Your task to perform on an android device: toggle notification dots Image 0: 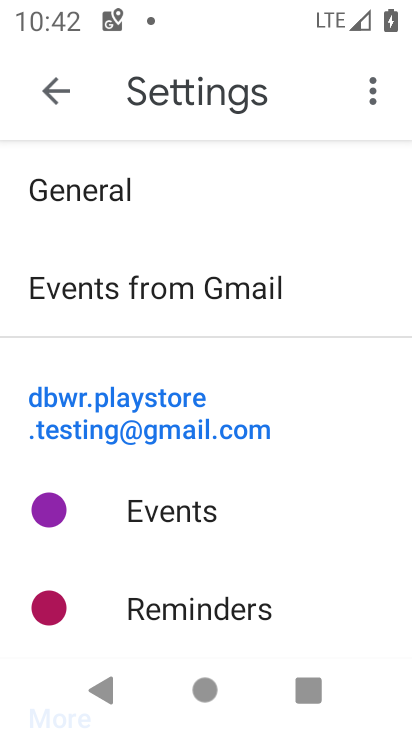
Step 0: press home button
Your task to perform on an android device: toggle notification dots Image 1: 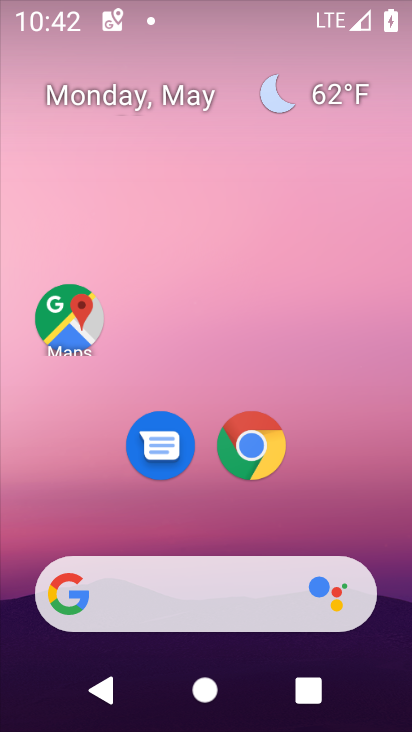
Step 1: drag from (386, 624) to (272, 54)
Your task to perform on an android device: toggle notification dots Image 2: 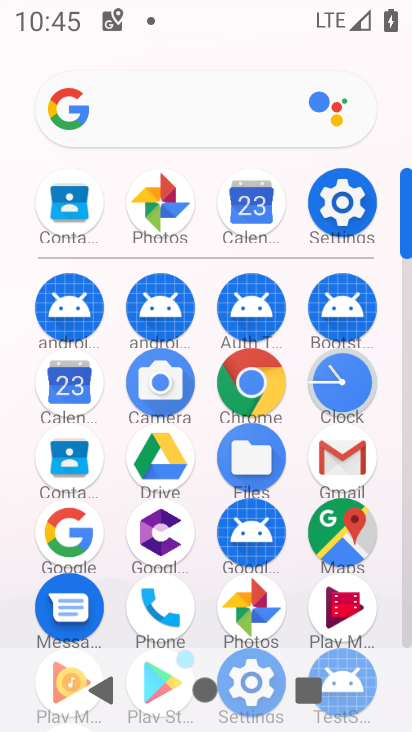
Step 2: click (344, 211)
Your task to perform on an android device: toggle notification dots Image 3: 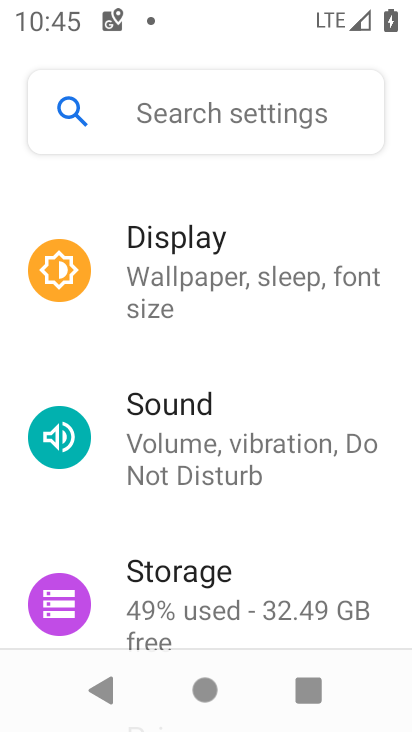
Step 3: drag from (255, 233) to (283, 637)
Your task to perform on an android device: toggle notification dots Image 4: 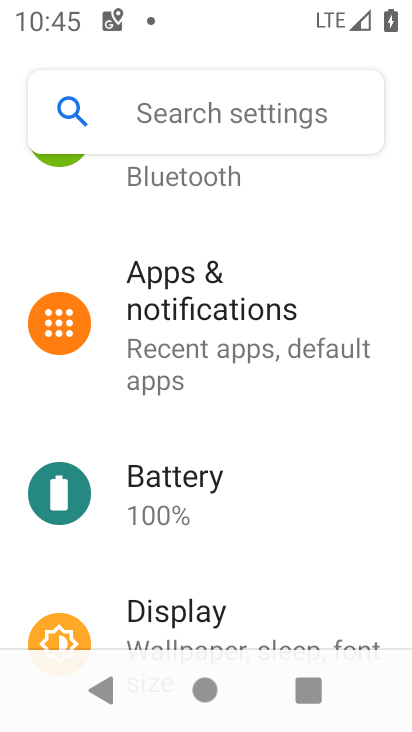
Step 4: click (231, 273)
Your task to perform on an android device: toggle notification dots Image 5: 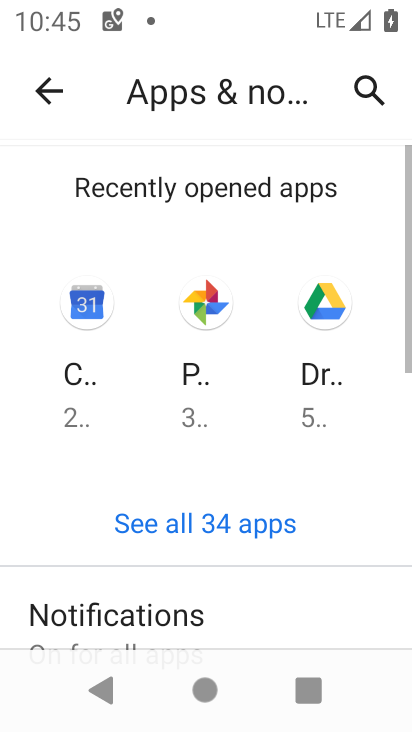
Step 5: click (206, 600)
Your task to perform on an android device: toggle notification dots Image 6: 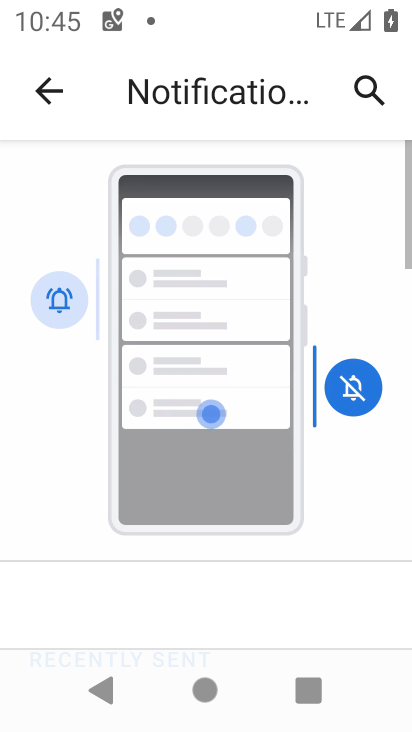
Step 6: drag from (209, 596) to (396, 544)
Your task to perform on an android device: toggle notification dots Image 7: 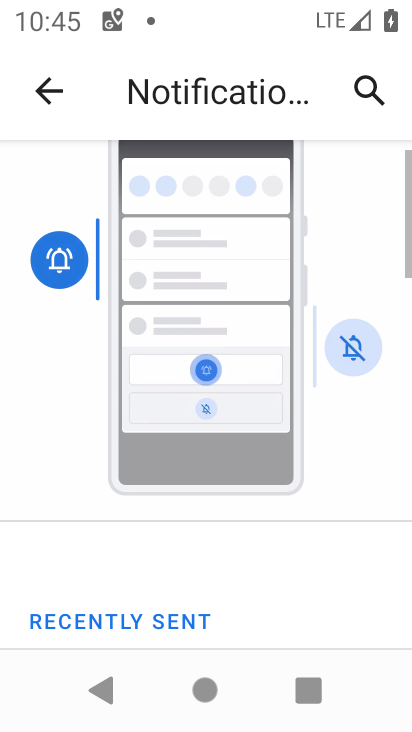
Step 7: drag from (146, 543) to (186, 1)
Your task to perform on an android device: toggle notification dots Image 8: 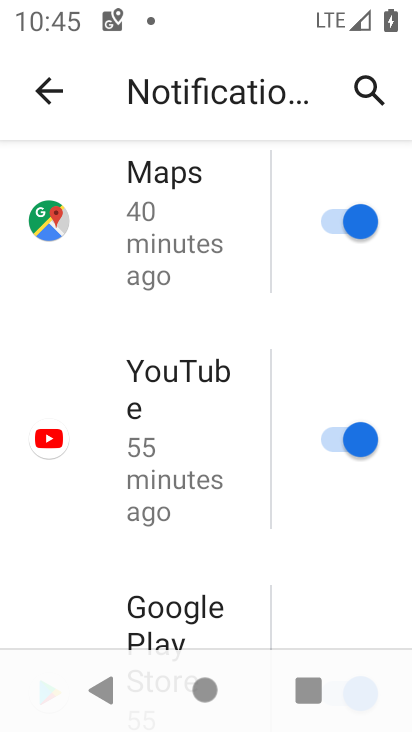
Step 8: drag from (146, 575) to (179, 54)
Your task to perform on an android device: toggle notification dots Image 9: 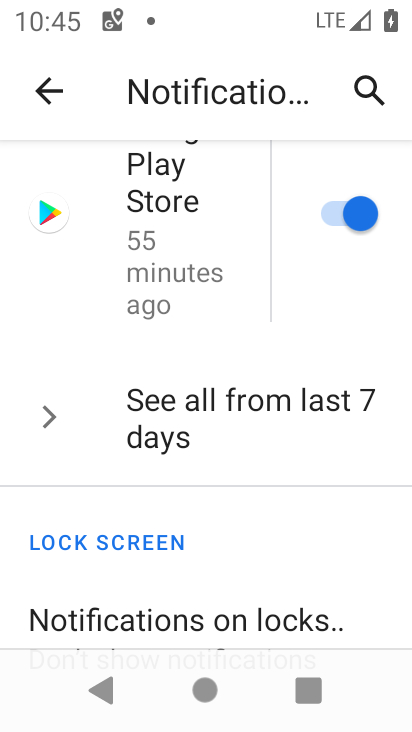
Step 9: drag from (142, 601) to (168, 91)
Your task to perform on an android device: toggle notification dots Image 10: 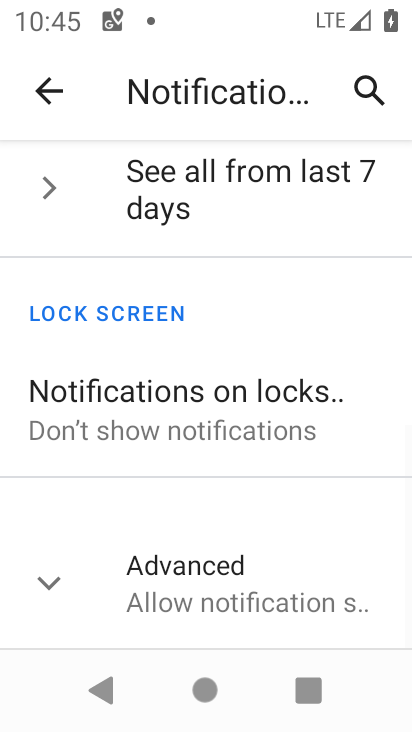
Step 10: click (204, 579)
Your task to perform on an android device: toggle notification dots Image 11: 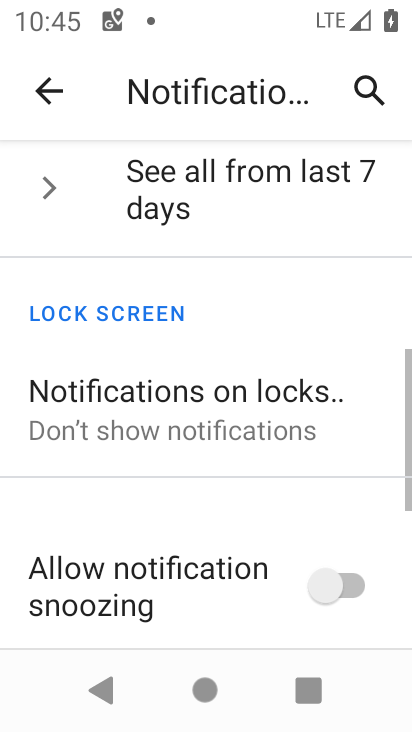
Step 11: drag from (161, 630) to (234, 100)
Your task to perform on an android device: toggle notification dots Image 12: 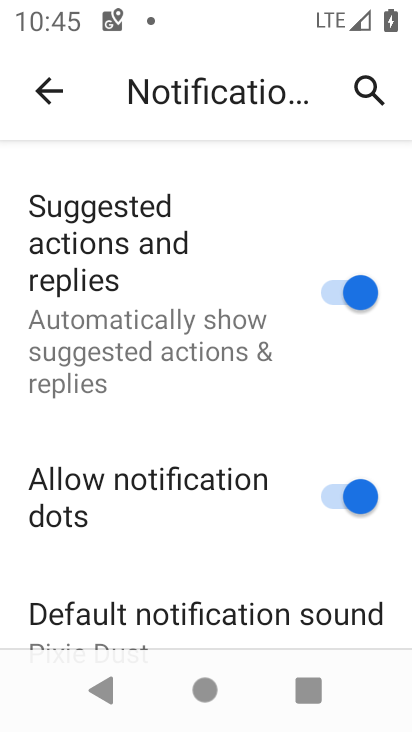
Step 12: click (242, 511)
Your task to perform on an android device: toggle notification dots Image 13: 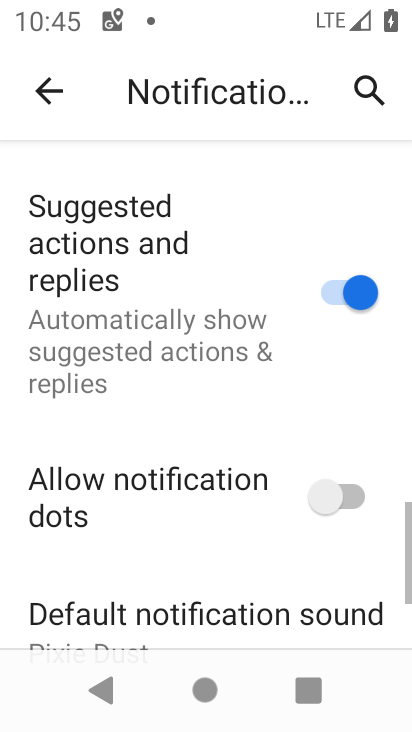
Step 13: task complete